Your task to perform on an android device: Is it going to rain this weekend? Image 0: 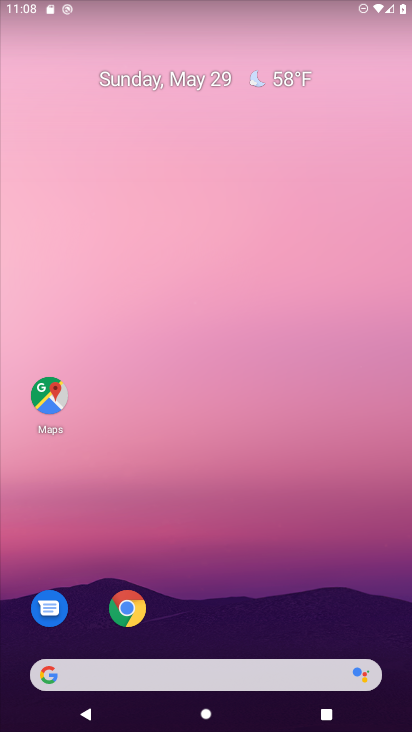
Step 0: drag from (219, 525) to (212, 347)
Your task to perform on an android device: Is it going to rain this weekend? Image 1: 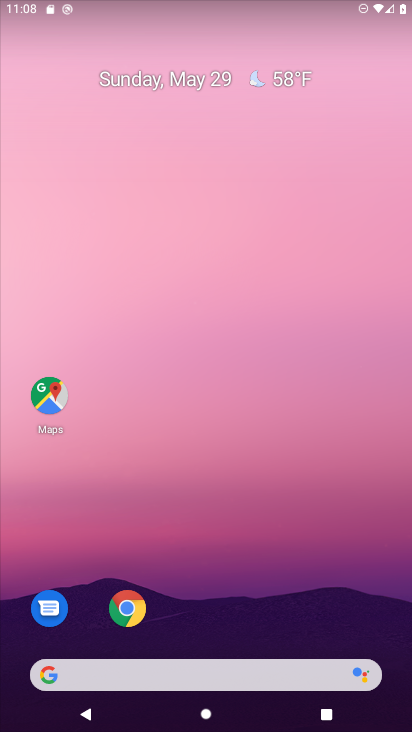
Step 1: drag from (248, 557) to (210, 210)
Your task to perform on an android device: Is it going to rain this weekend? Image 2: 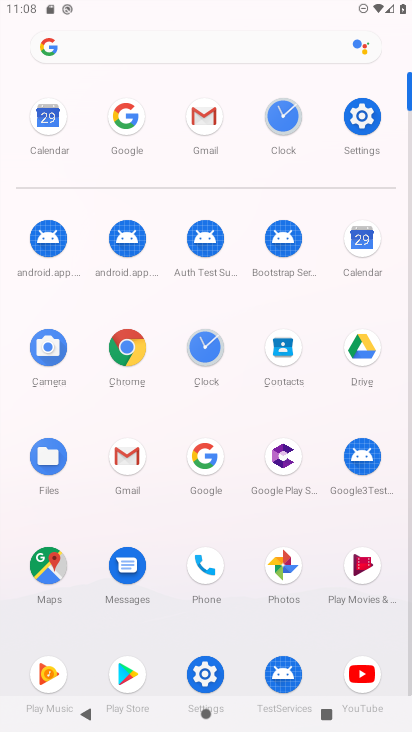
Step 2: click (127, 116)
Your task to perform on an android device: Is it going to rain this weekend? Image 3: 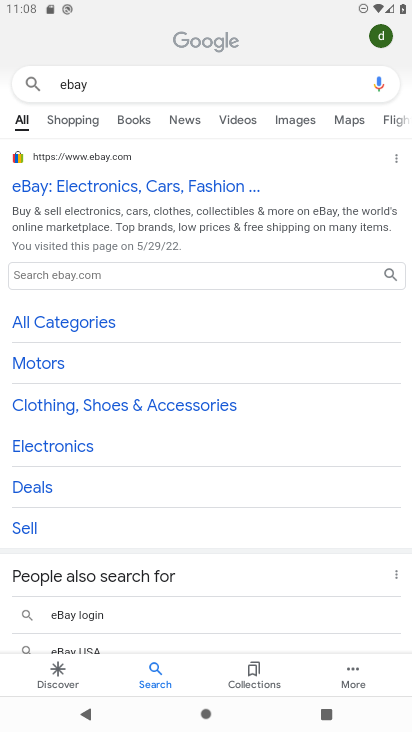
Step 3: click (155, 85)
Your task to perform on an android device: Is it going to rain this weekend? Image 4: 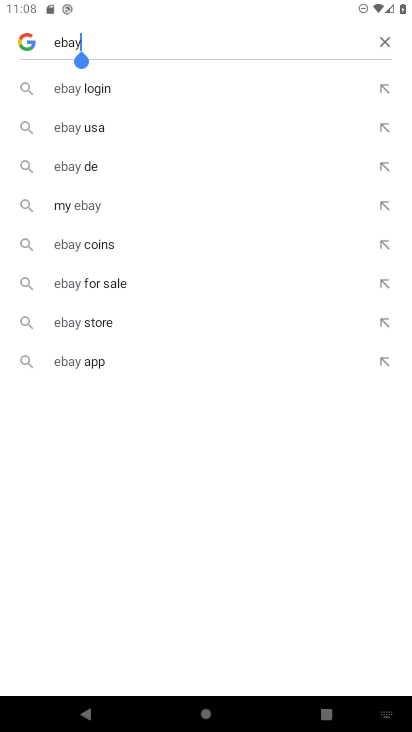
Step 4: click (380, 42)
Your task to perform on an android device: Is it going to rain this weekend? Image 5: 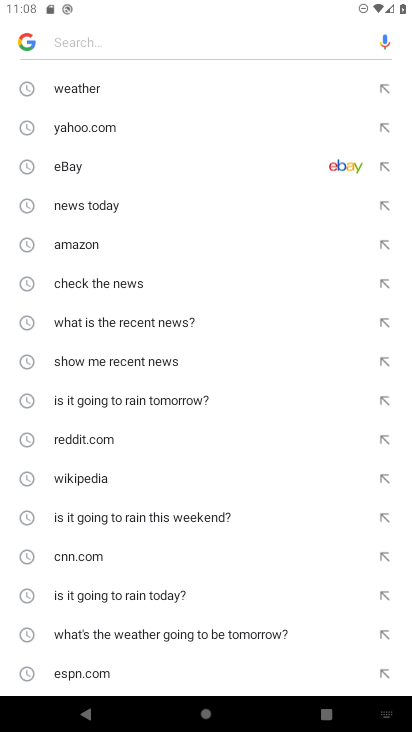
Step 5: click (130, 519)
Your task to perform on an android device: Is it going to rain this weekend? Image 6: 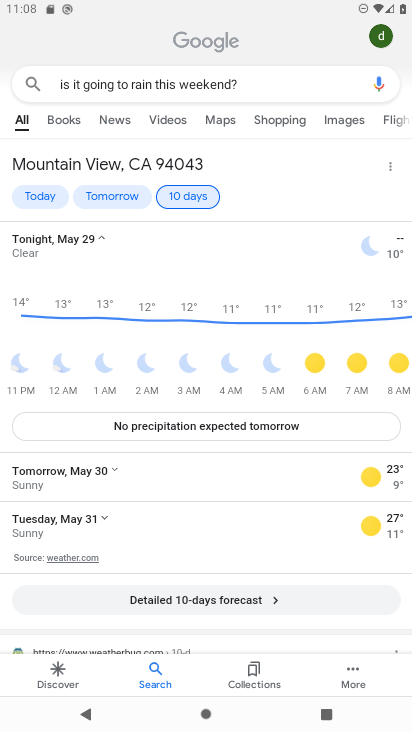
Step 6: task complete